Your task to perform on an android device: Go to Maps Image 0: 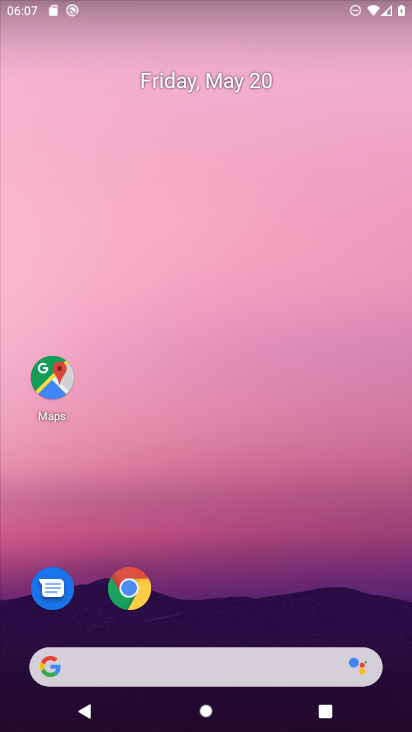
Step 0: click (70, 403)
Your task to perform on an android device: Go to Maps Image 1: 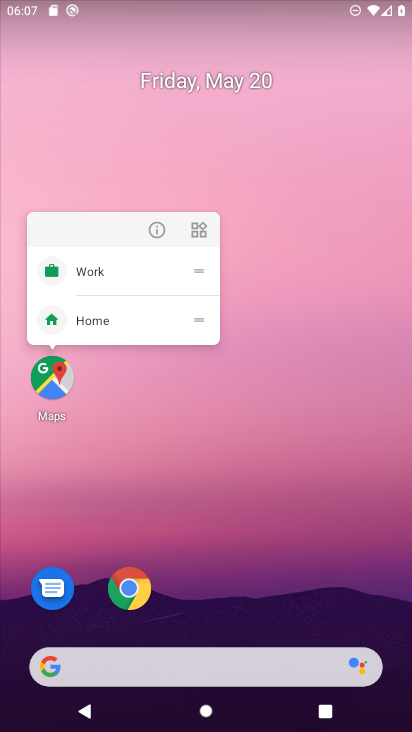
Step 1: click (55, 381)
Your task to perform on an android device: Go to Maps Image 2: 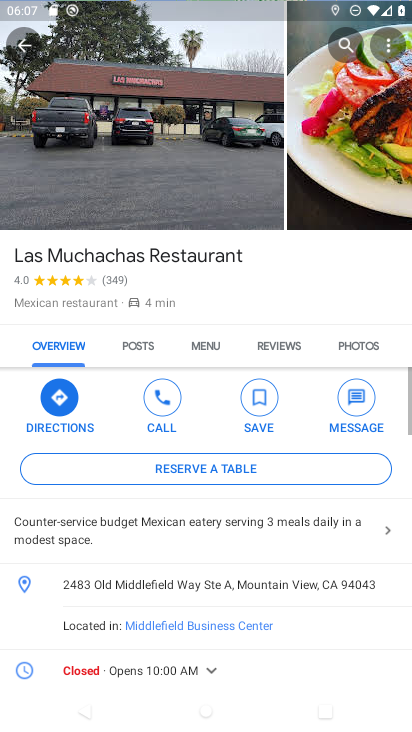
Step 2: task complete